Your task to perform on an android device: Open my contact list Image 0: 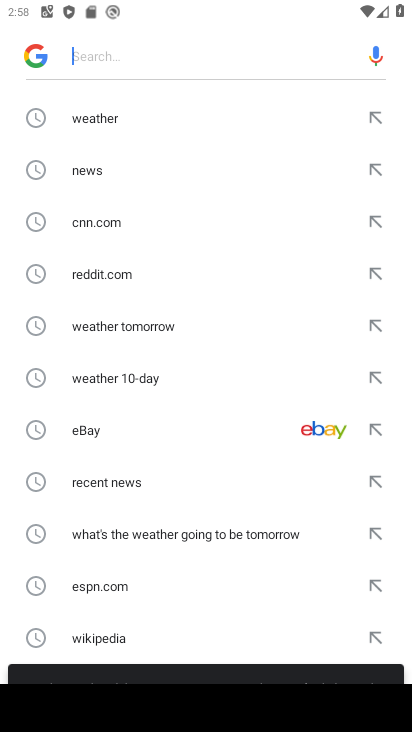
Step 0: press home button
Your task to perform on an android device: Open my contact list Image 1: 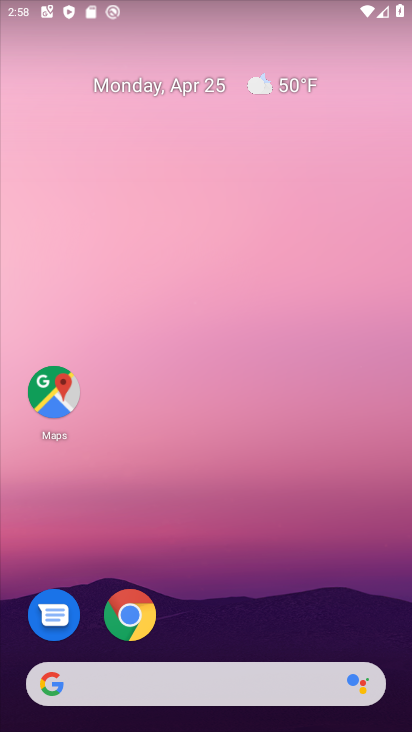
Step 1: drag from (222, 721) to (198, 152)
Your task to perform on an android device: Open my contact list Image 2: 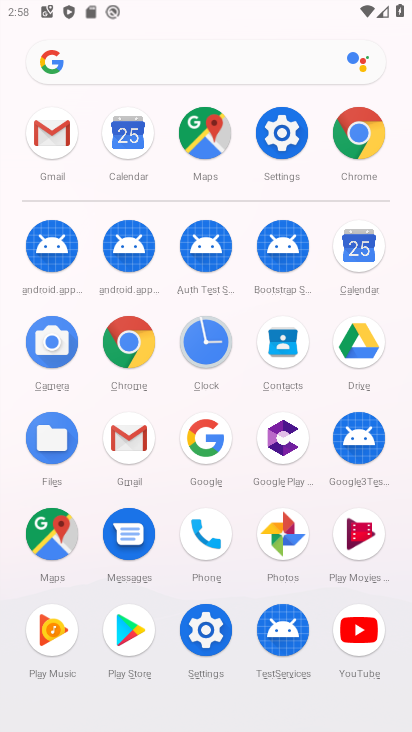
Step 2: click (277, 347)
Your task to perform on an android device: Open my contact list Image 3: 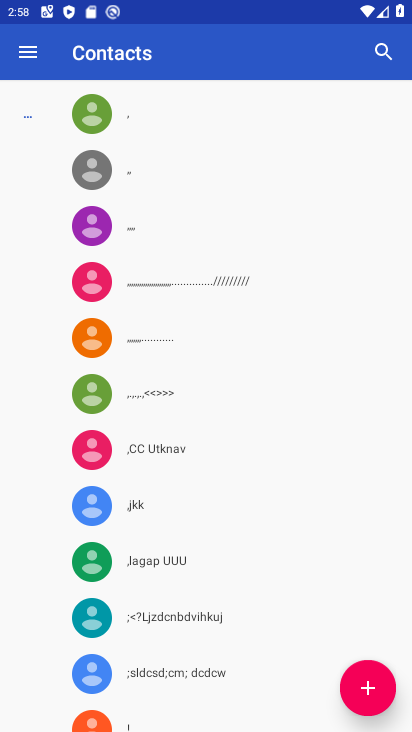
Step 3: task complete